Your task to perform on an android device: remove spam from my inbox in the gmail app Image 0: 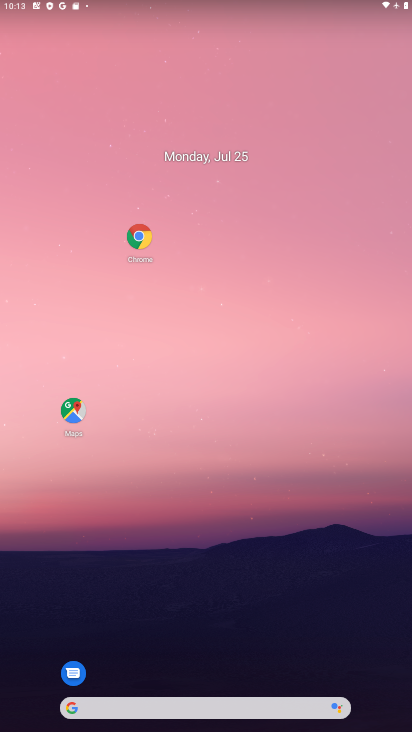
Step 0: drag from (281, 646) to (262, 6)
Your task to perform on an android device: remove spam from my inbox in the gmail app Image 1: 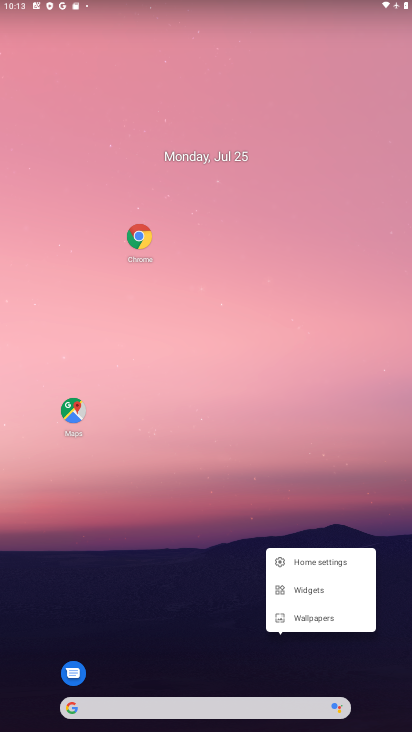
Step 1: click (232, 574)
Your task to perform on an android device: remove spam from my inbox in the gmail app Image 2: 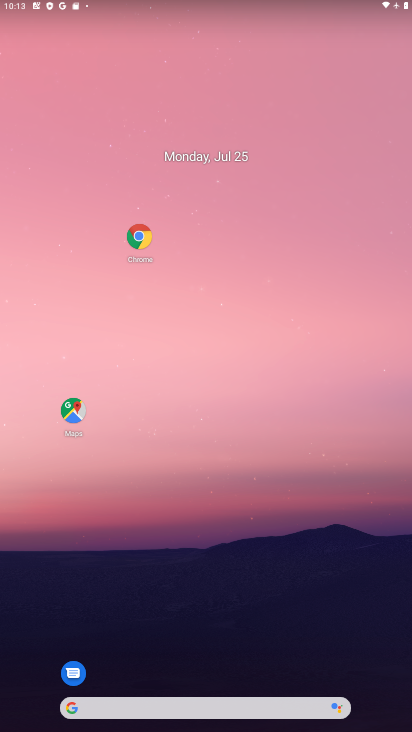
Step 2: drag from (241, 675) to (289, 156)
Your task to perform on an android device: remove spam from my inbox in the gmail app Image 3: 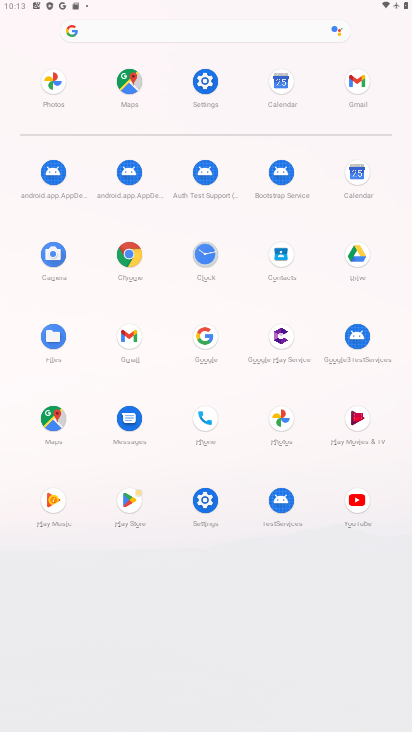
Step 3: click (352, 98)
Your task to perform on an android device: remove spam from my inbox in the gmail app Image 4: 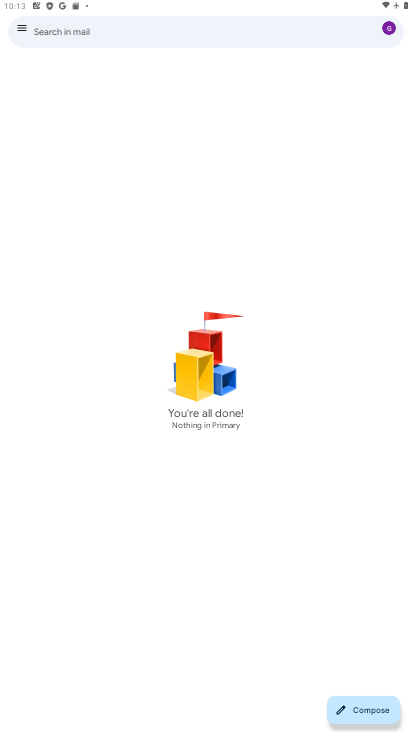
Step 4: task complete